Your task to perform on an android device: check battery use Image 0: 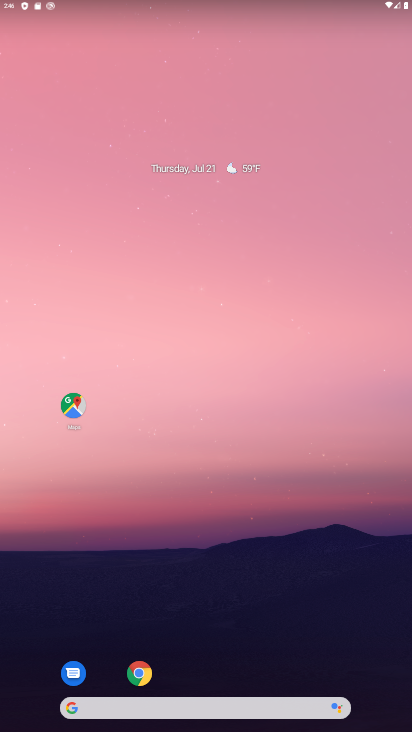
Step 0: drag from (303, 577) to (282, 28)
Your task to perform on an android device: check battery use Image 1: 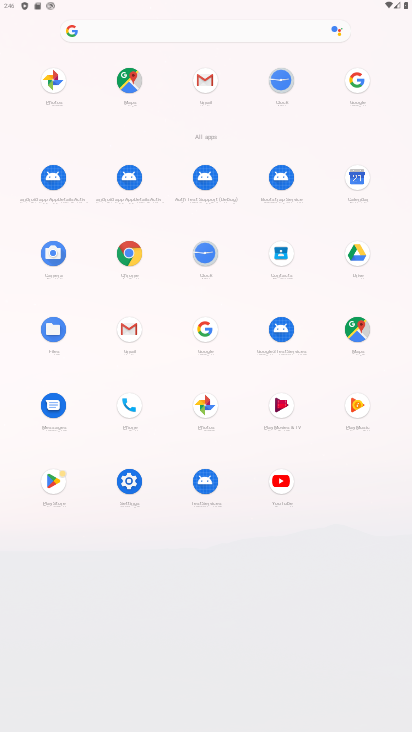
Step 1: click (123, 496)
Your task to perform on an android device: check battery use Image 2: 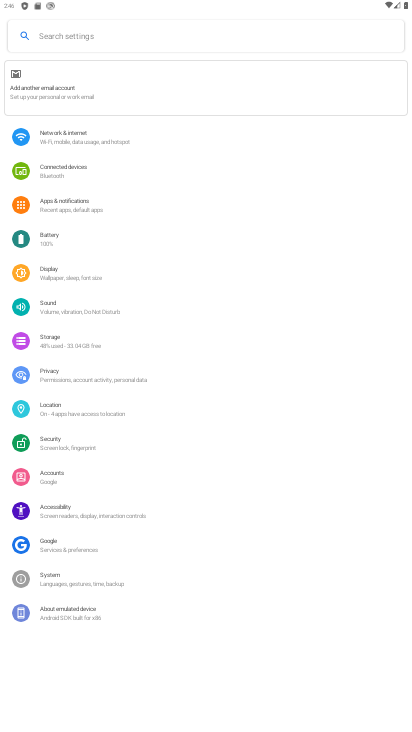
Step 2: click (64, 244)
Your task to perform on an android device: check battery use Image 3: 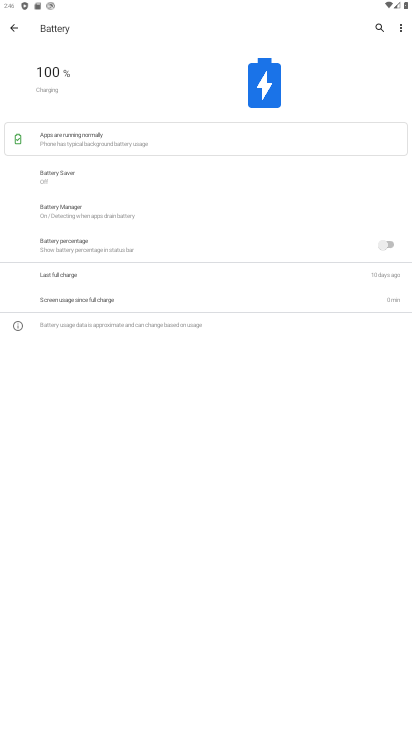
Step 3: click (408, 26)
Your task to perform on an android device: check battery use Image 4: 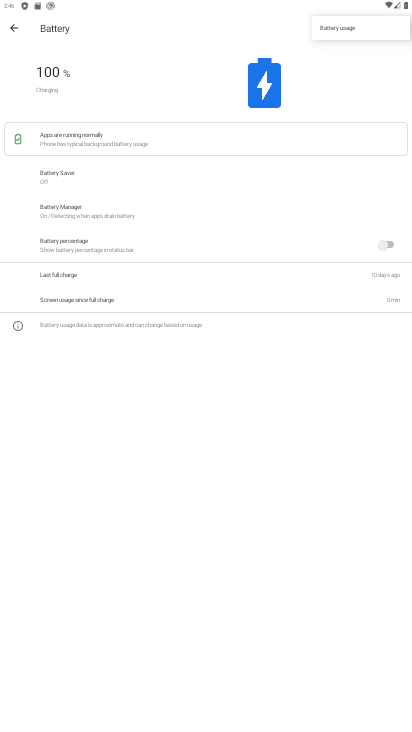
Step 4: click (348, 28)
Your task to perform on an android device: check battery use Image 5: 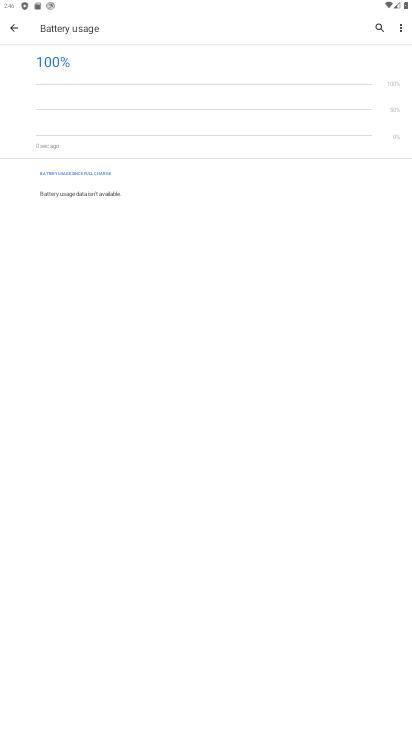
Step 5: task complete